Your task to perform on an android device: Open Youtube and go to "Your channel" Image 0: 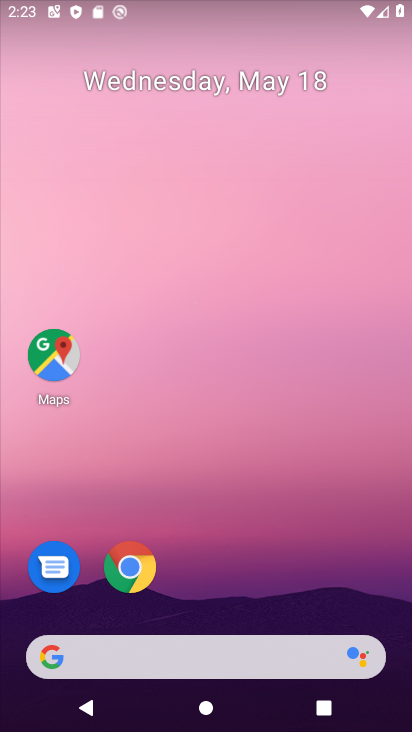
Step 0: drag from (240, 536) to (251, 116)
Your task to perform on an android device: Open Youtube and go to "Your channel" Image 1: 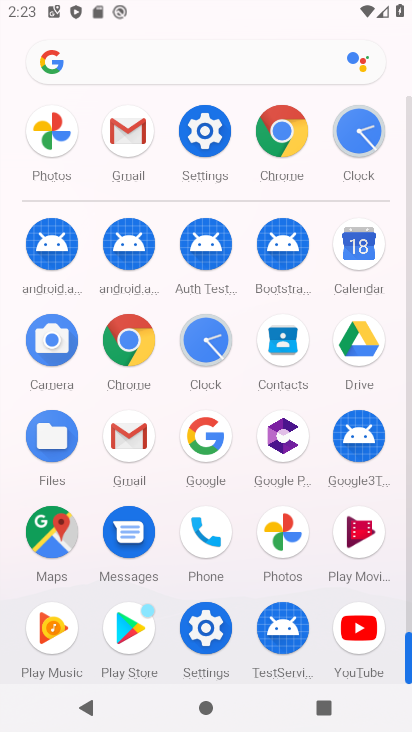
Step 1: click (363, 626)
Your task to perform on an android device: Open Youtube and go to "Your channel" Image 2: 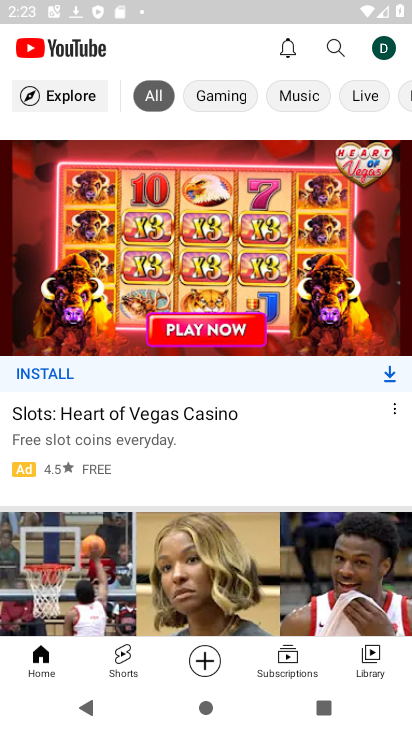
Step 2: click (385, 39)
Your task to perform on an android device: Open Youtube and go to "Your channel" Image 3: 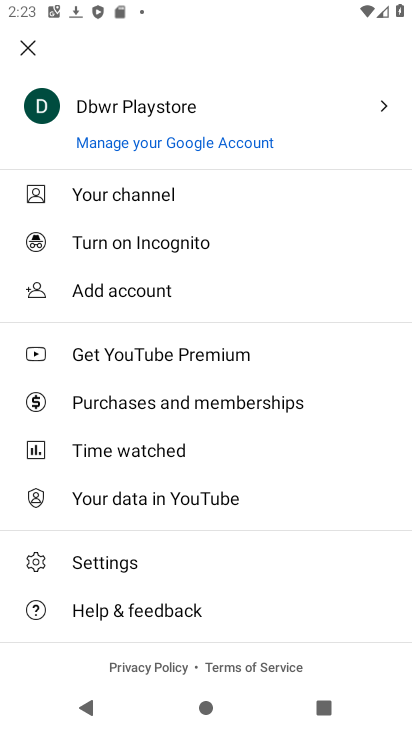
Step 3: click (165, 187)
Your task to perform on an android device: Open Youtube and go to "Your channel" Image 4: 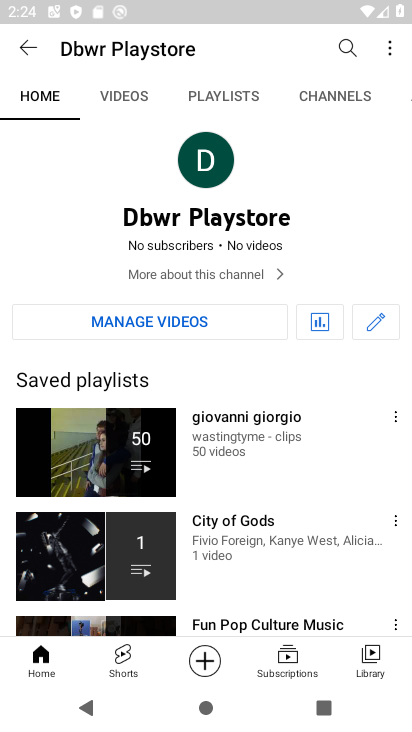
Step 4: task complete